Your task to perform on an android device: manage bookmarks in the chrome app Image 0: 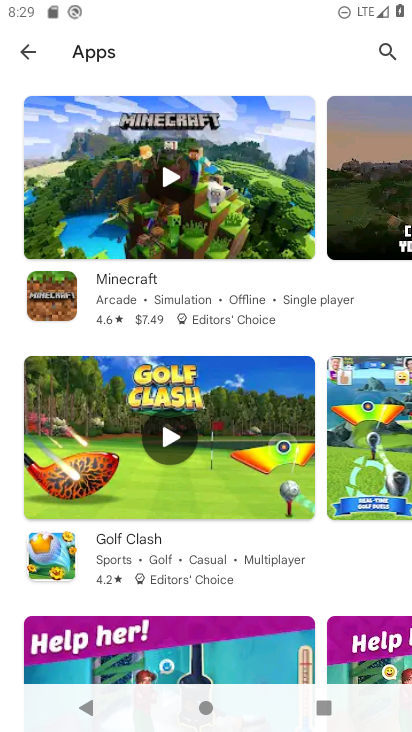
Step 0: drag from (220, 503) to (319, 98)
Your task to perform on an android device: manage bookmarks in the chrome app Image 1: 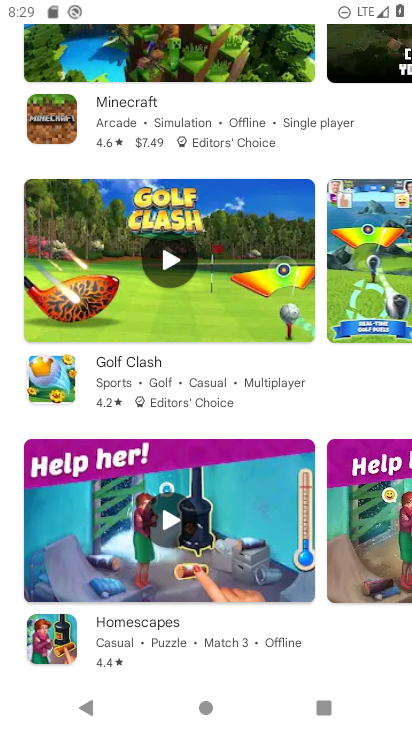
Step 1: drag from (219, 524) to (333, 689)
Your task to perform on an android device: manage bookmarks in the chrome app Image 2: 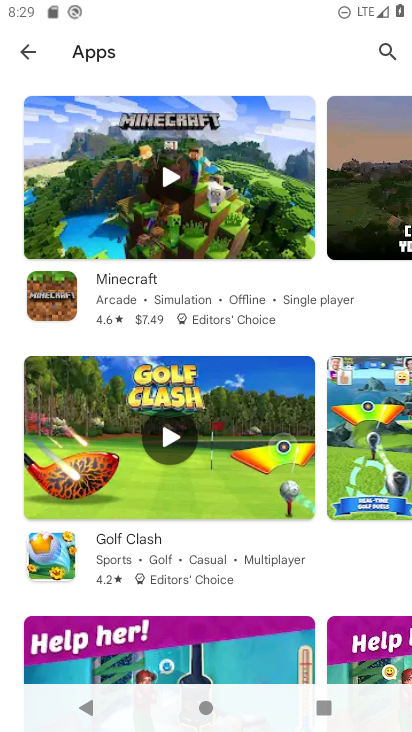
Step 2: press home button
Your task to perform on an android device: manage bookmarks in the chrome app Image 3: 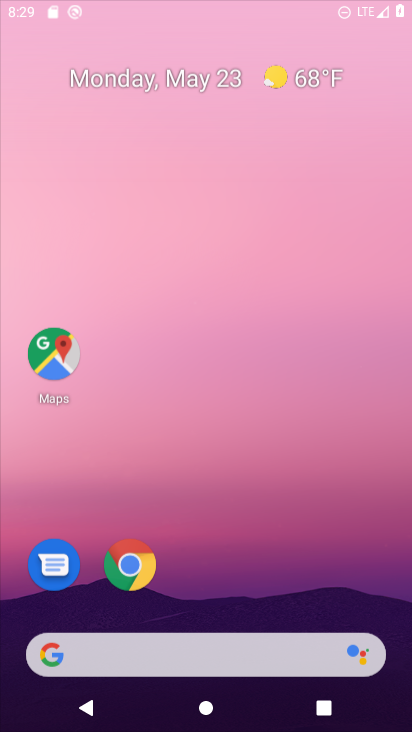
Step 3: drag from (161, 616) to (263, 84)
Your task to perform on an android device: manage bookmarks in the chrome app Image 4: 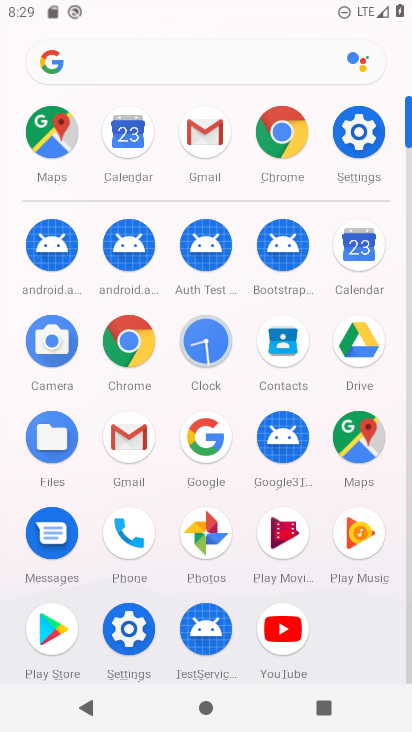
Step 4: click (121, 341)
Your task to perform on an android device: manage bookmarks in the chrome app Image 5: 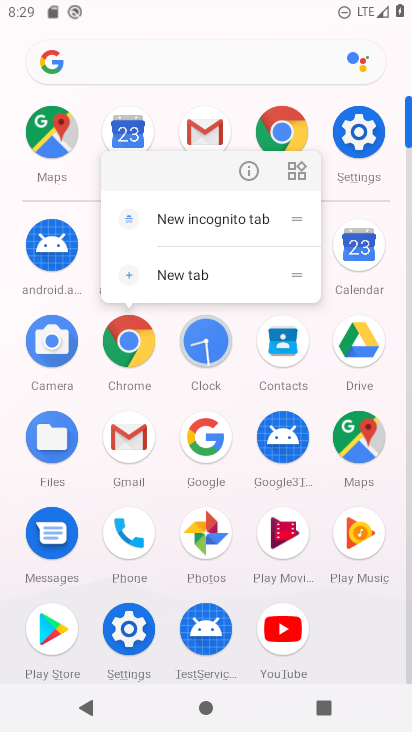
Step 5: click (245, 172)
Your task to perform on an android device: manage bookmarks in the chrome app Image 6: 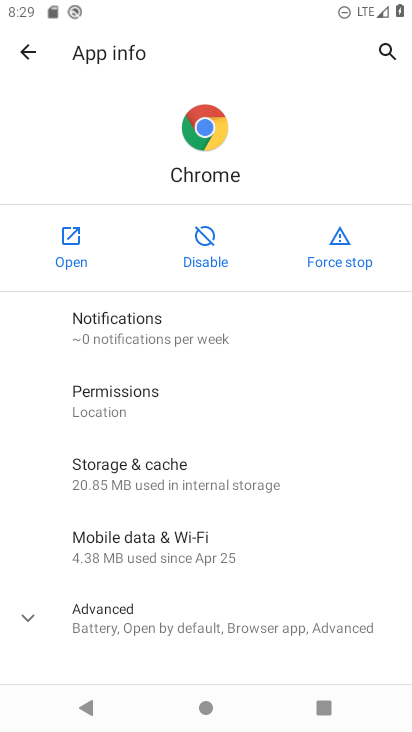
Step 6: click (56, 245)
Your task to perform on an android device: manage bookmarks in the chrome app Image 7: 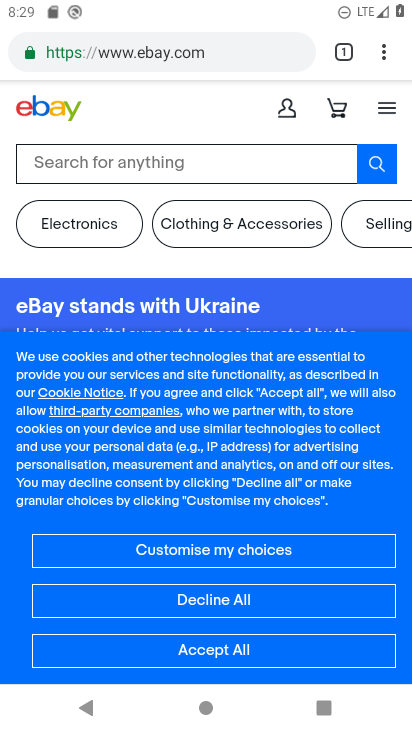
Step 7: click (380, 54)
Your task to perform on an android device: manage bookmarks in the chrome app Image 8: 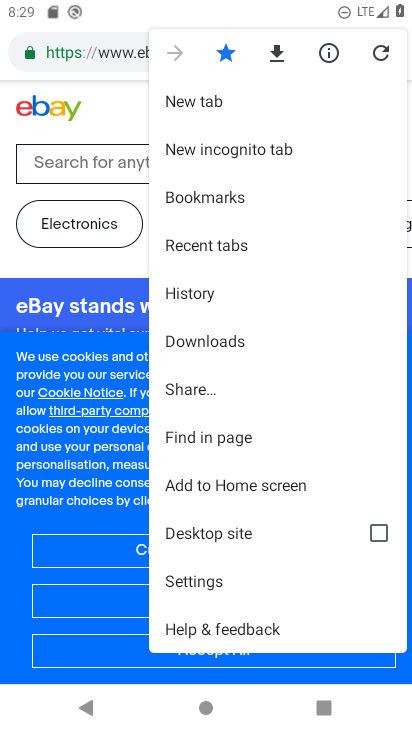
Step 8: drag from (263, 553) to (340, 198)
Your task to perform on an android device: manage bookmarks in the chrome app Image 9: 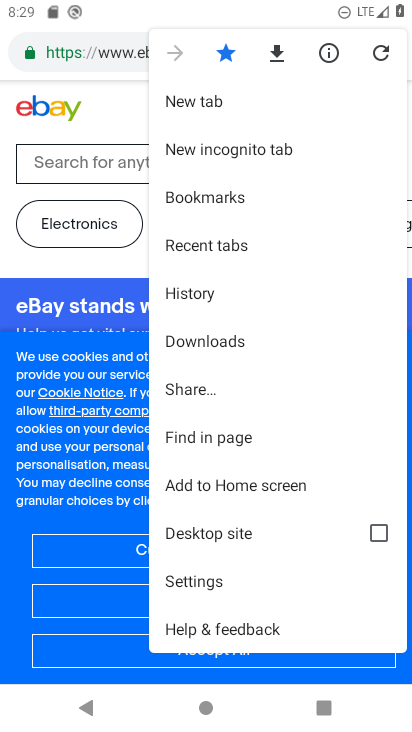
Step 9: click (209, 586)
Your task to perform on an android device: manage bookmarks in the chrome app Image 10: 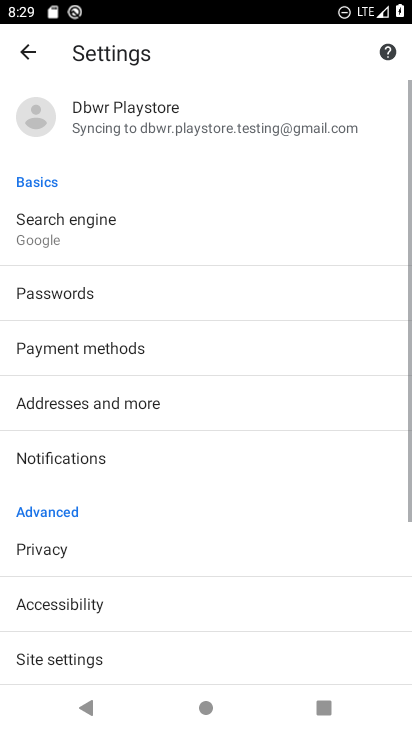
Step 10: drag from (233, 545) to (307, 211)
Your task to perform on an android device: manage bookmarks in the chrome app Image 11: 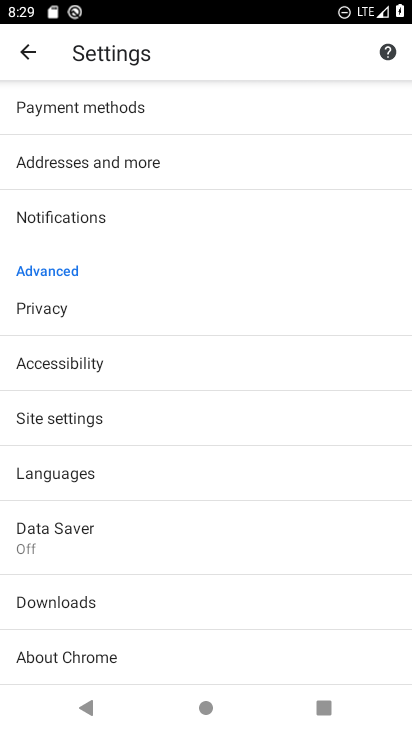
Step 11: drag from (189, 589) to (211, 381)
Your task to perform on an android device: manage bookmarks in the chrome app Image 12: 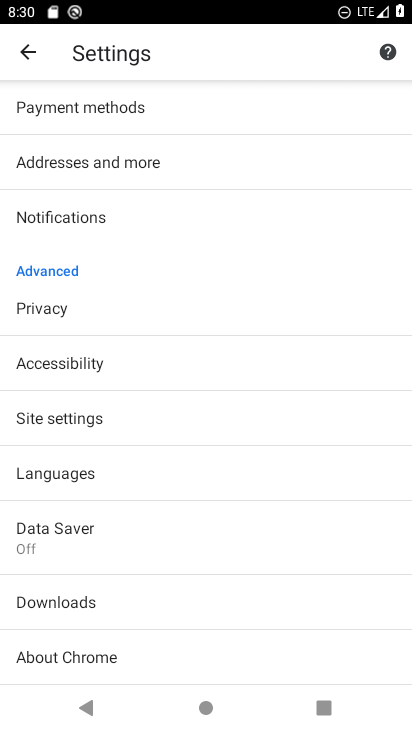
Step 12: drag from (206, 256) to (253, 679)
Your task to perform on an android device: manage bookmarks in the chrome app Image 13: 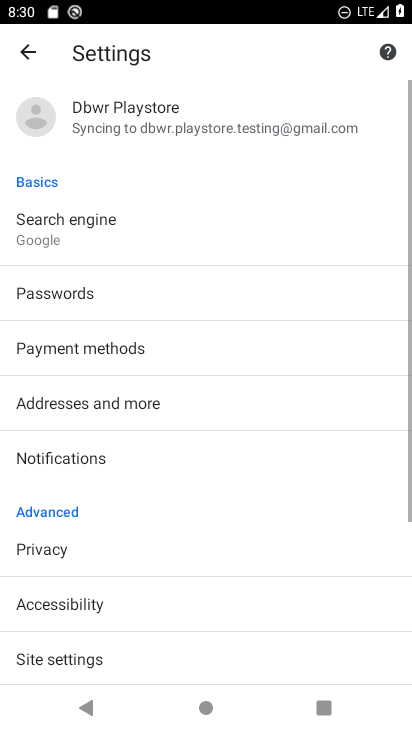
Step 13: drag from (230, 482) to (340, 33)
Your task to perform on an android device: manage bookmarks in the chrome app Image 14: 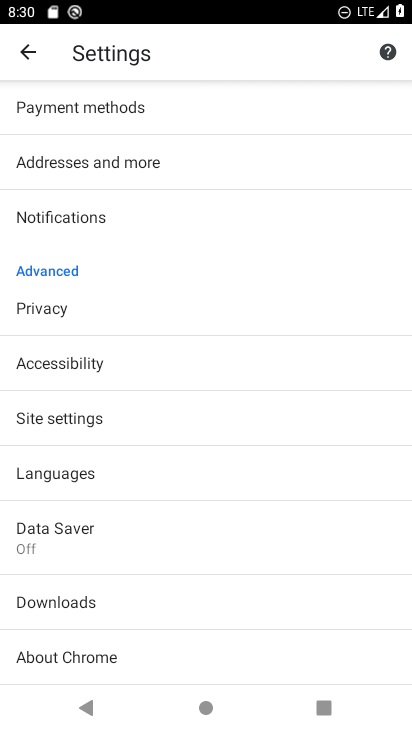
Step 14: click (29, 68)
Your task to perform on an android device: manage bookmarks in the chrome app Image 15: 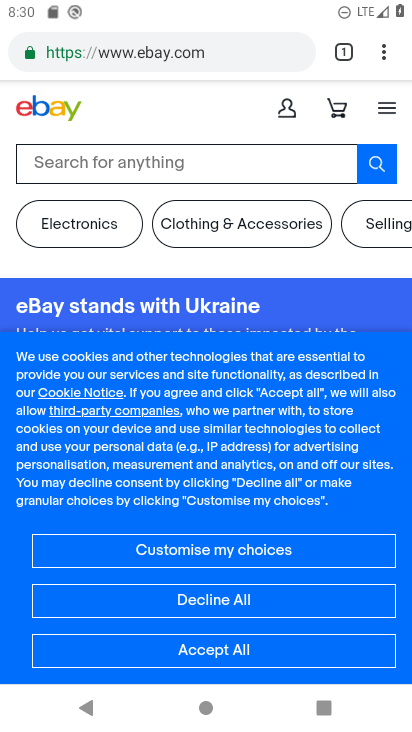
Step 15: click (383, 41)
Your task to perform on an android device: manage bookmarks in the chrome app Image 16: 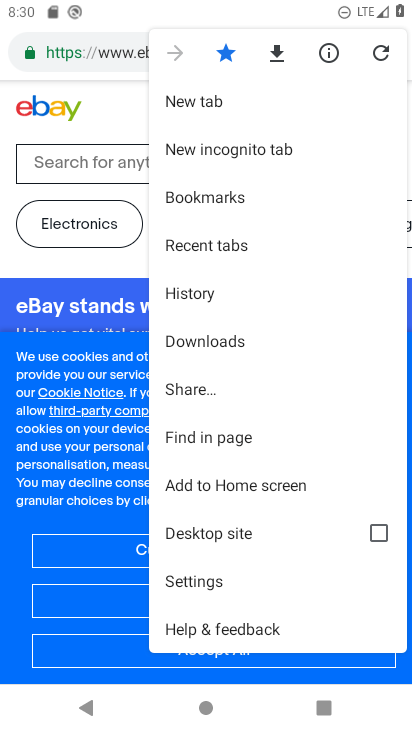
Step 16: click (220, 205)
Your task to perform on an android device: manage bookmarks in the chrome app Image 17: 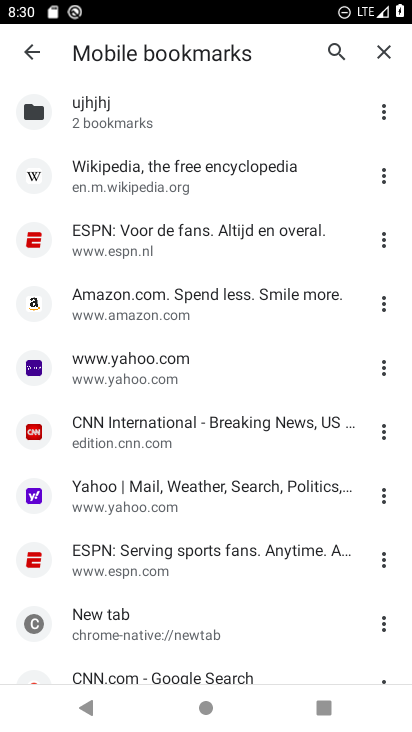
Step 17: task complete